Your task to perform on an android device: View the shopping cart on walmart. Image 0: 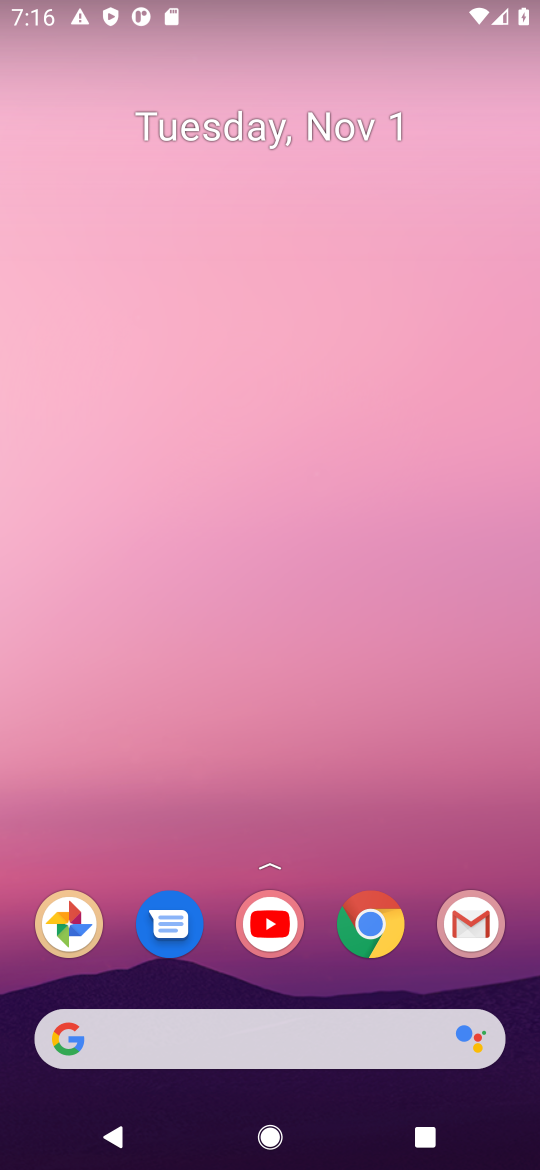
Step 0: drag from (420, 818) to (518, 20)
Your task to perform on an android device: View the shopping cart on walmart. Image 1: 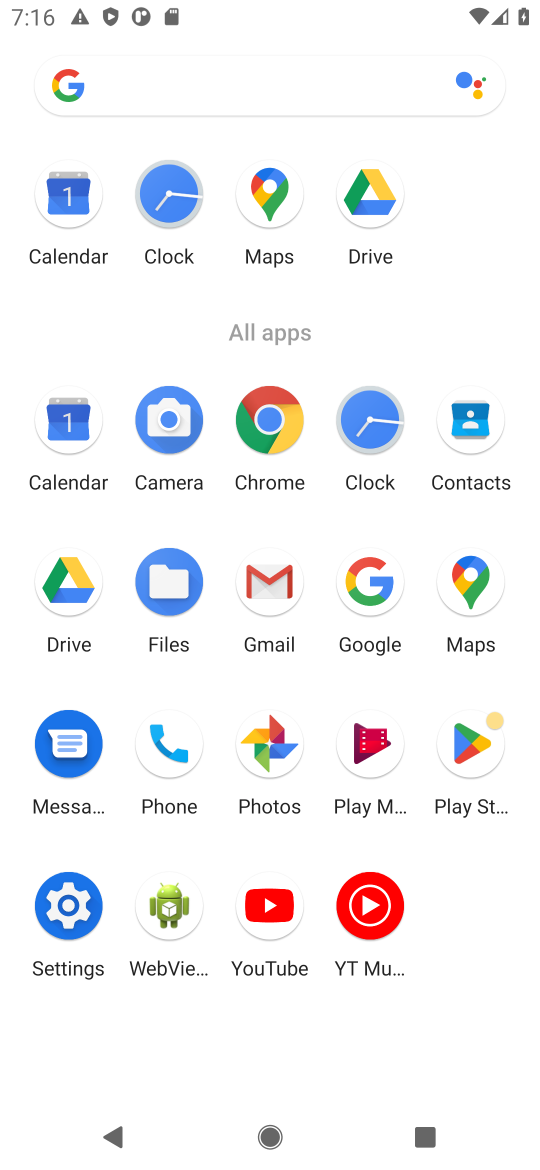
Step 1: click (368, 594)
Your task to perform on an android device: View the shopping cart on walmart. Image 2: 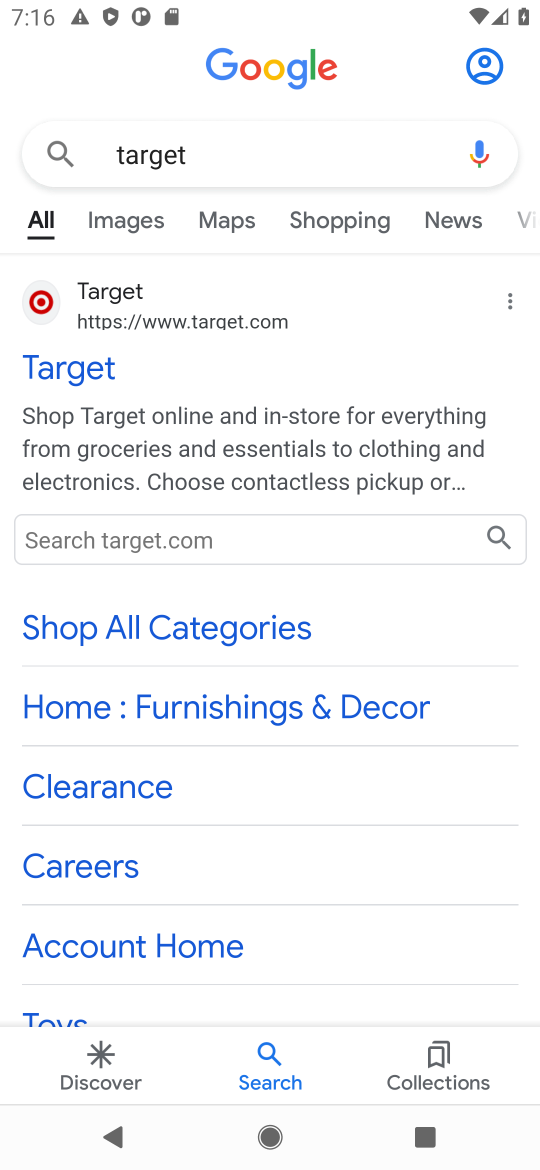
Step 2: click (196, 155)
Your task to perform on an android device: View the shopping cart on walmart. Image 3: 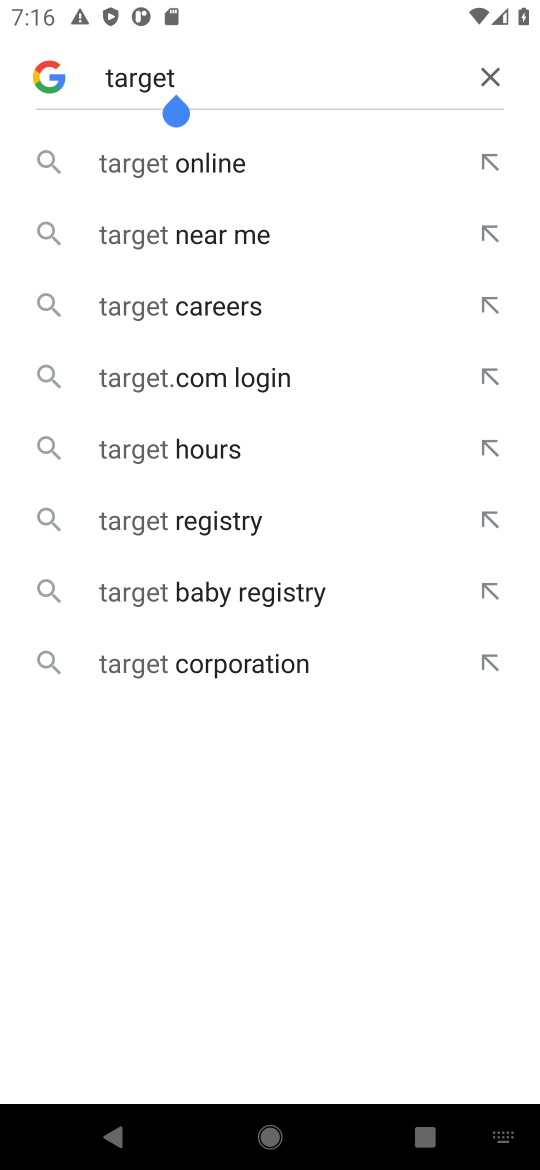
Step 3: click (485, 73)
Your task to perform on an android device: View the shopping cart on walmart. Image 4: 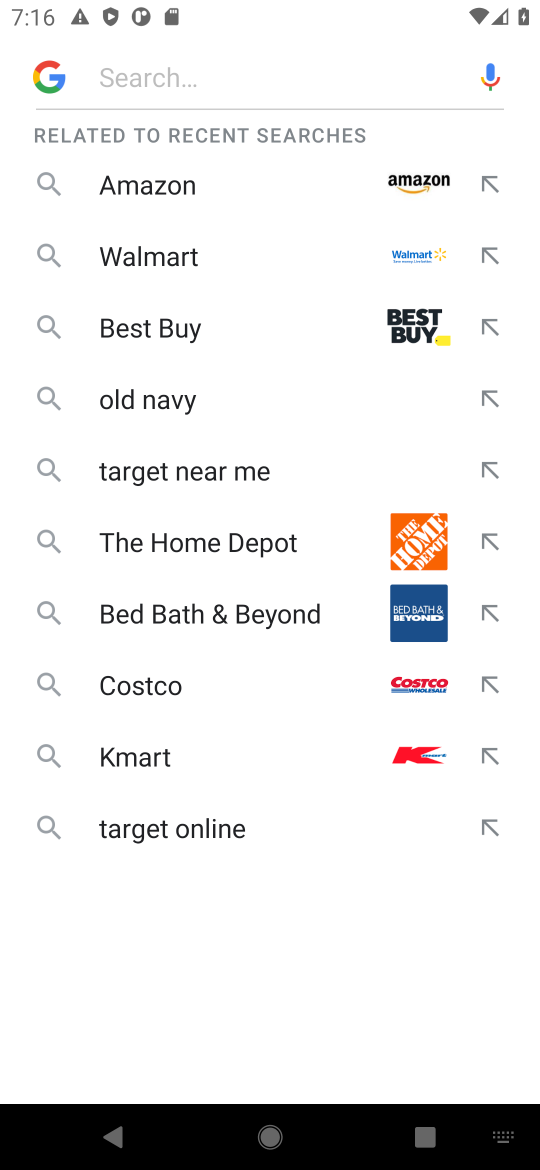
Step 4: click (143, 261)
Your task to perform on an android device: View the shopping cart on walmart. Image 5: 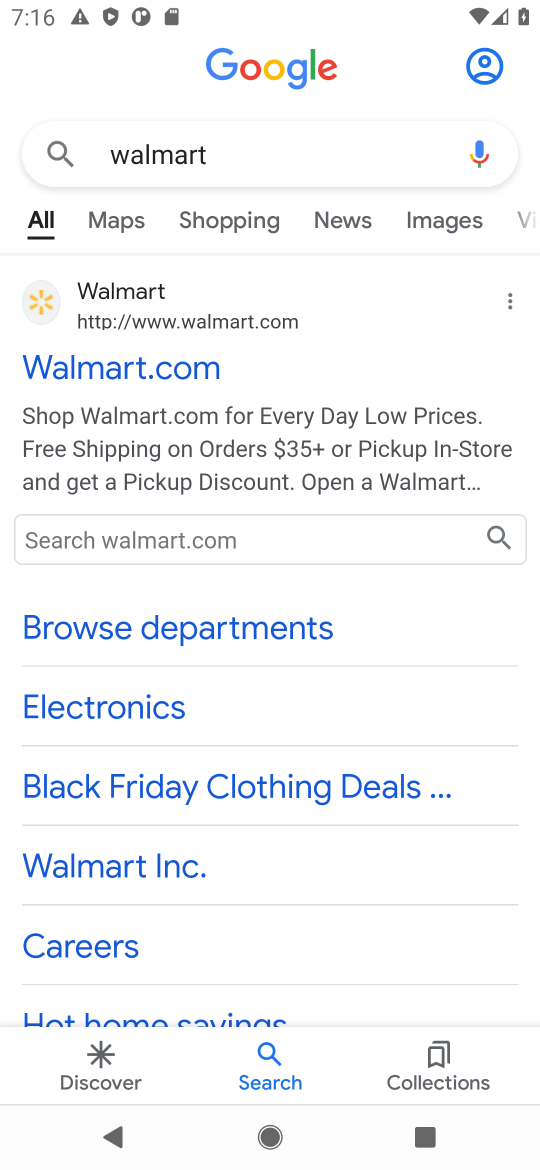
Step 5: click (123, 369)
Your task to perform on an android device: View the shopping cart on walmart. Image 6: 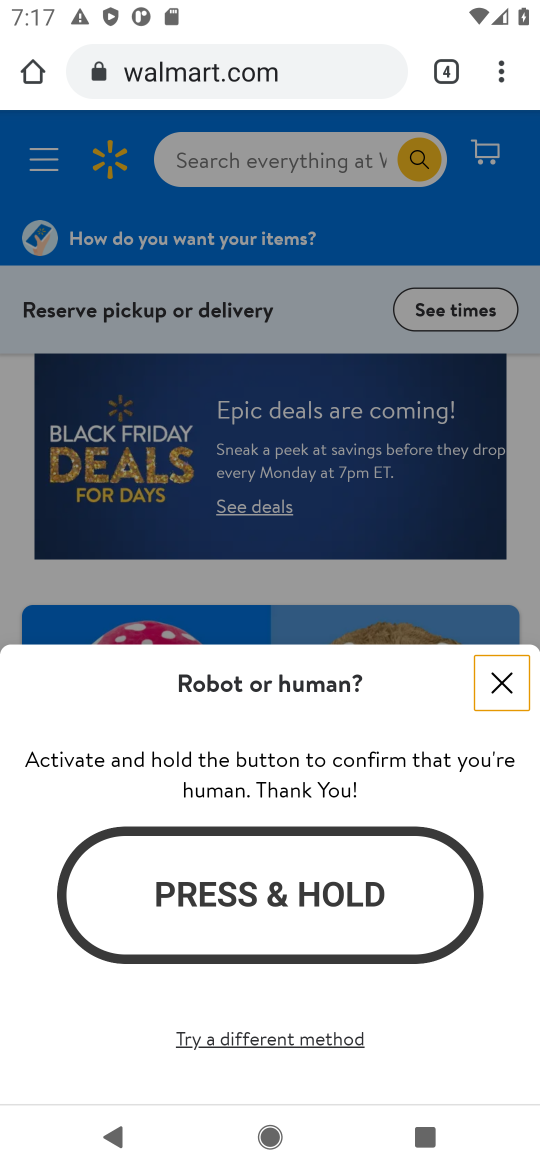
Step 6: click (486, 148)
Your task to perform on an android device: View the shopping cart on walmart. Image 7: 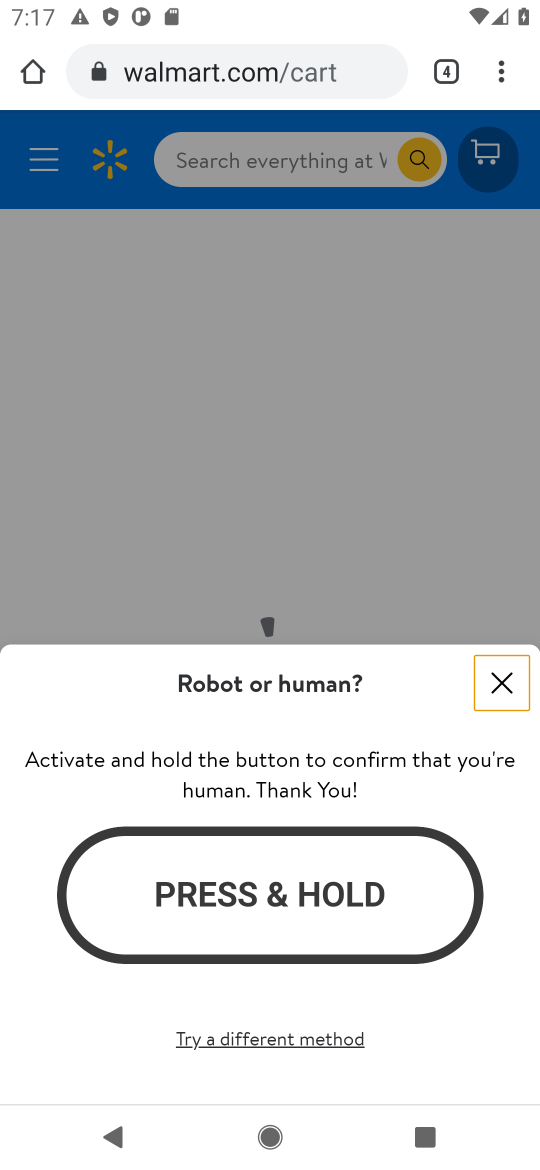
Step 7: click (503, 687)
Your task to perform on an android device: View the shopping cart on walmart. Image 8: 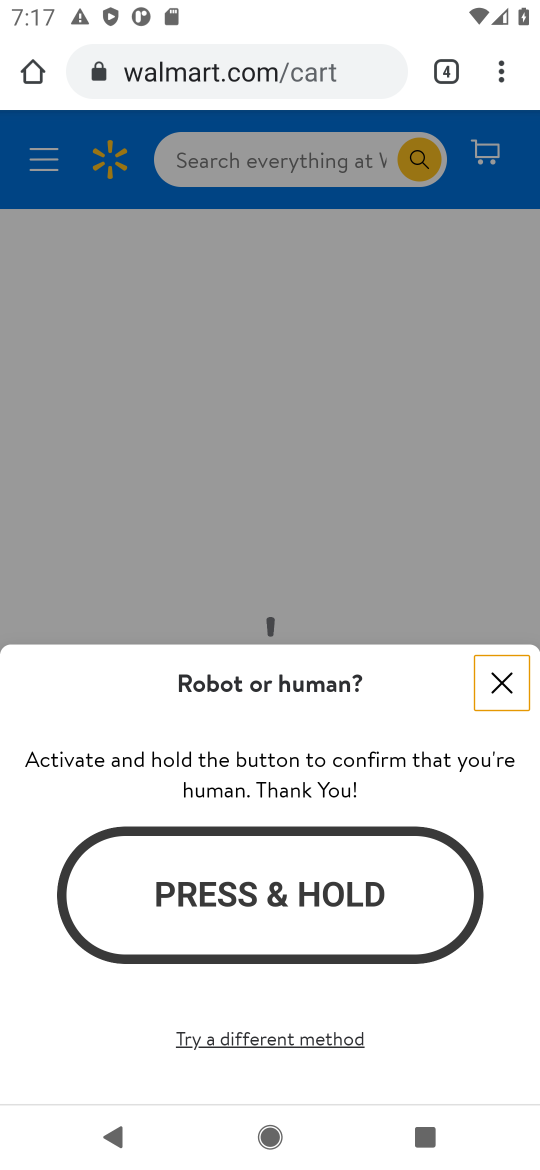
Step 8: click (505, 685)
Your task to perform on an android device: View the shopping cart on walmart. Image 9: 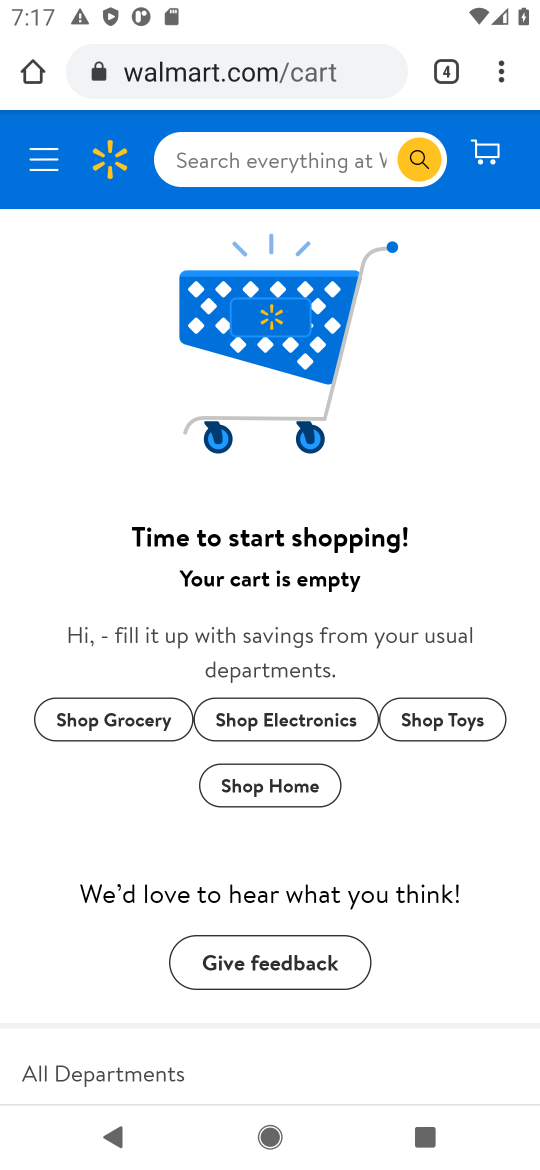
Step 9: task complete